Your task to perform on an android device: Is it going to rain today? Image 0: 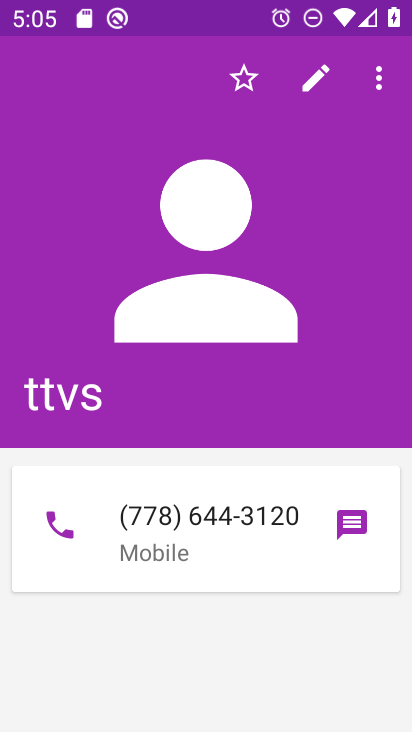
Step 0: press home button
Your task to perform on an android device: Is it going to rain today? Image 1: 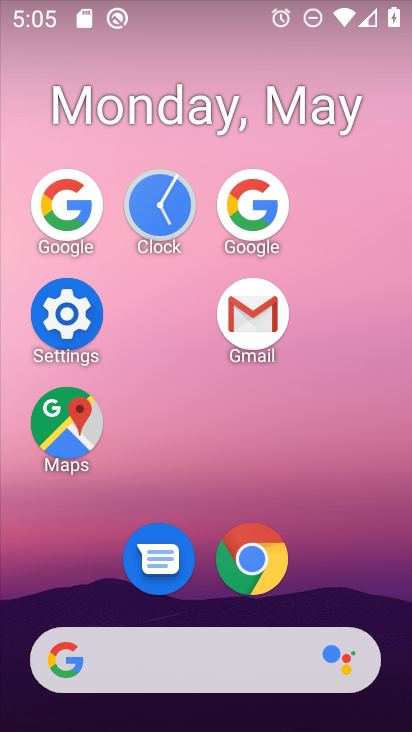
Step 1: click (94, 224)
Your task to perform on an android device: Is it going to rain today? Image 2: 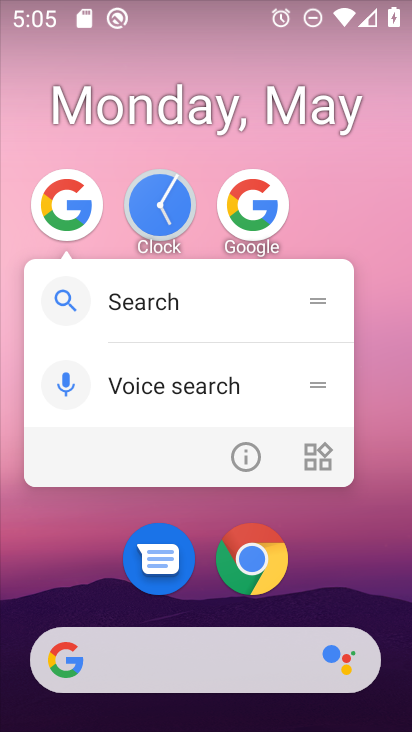
Step 2: click (55, 205)
Your task to perform on an android device: Is it going to rain today? Image 3: 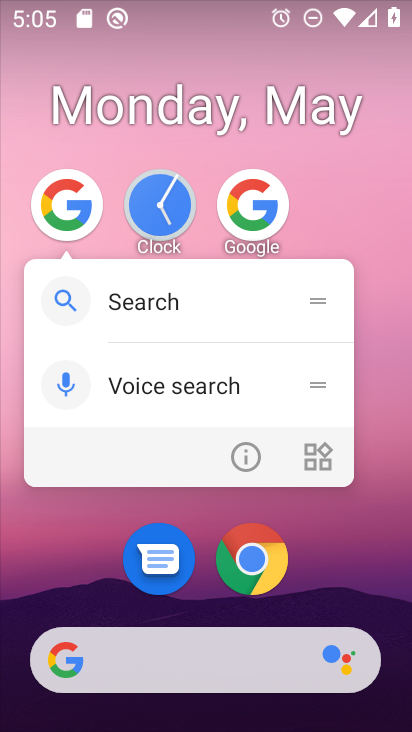
Step 3: click (63, 205)
Your task to perform on an android device: Is it going to rain today? Image 4: 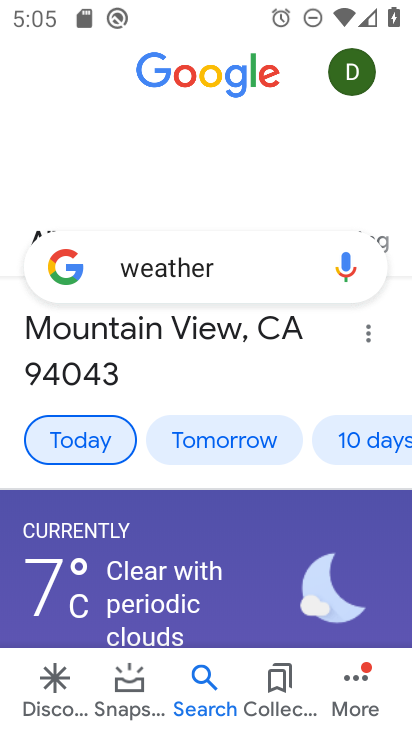
Step 4: task complete